Your task to perform on an android device: Open accessibility settings Image 0: 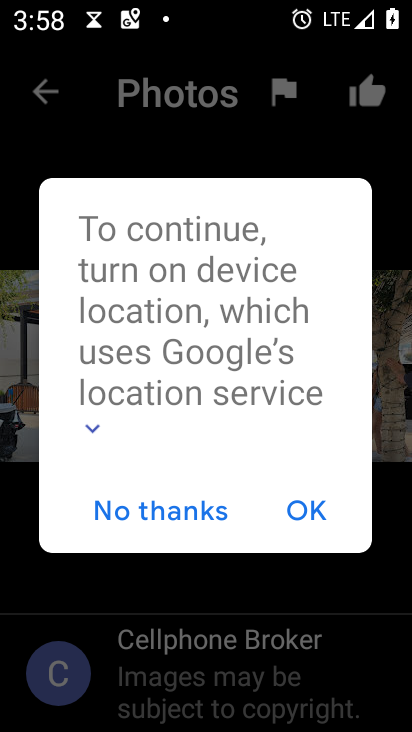
Step 0: press home button
Your task to perform on an android device: Open accessibility settings Image 1: 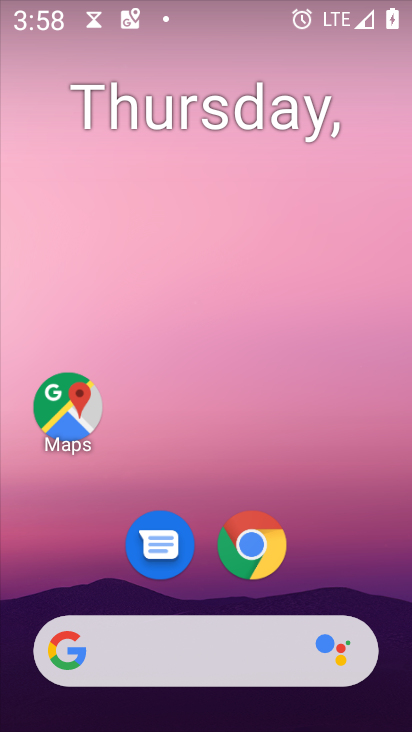
Step 1: drag from (355, 494) to (378, 9)
Your task to perform on an android device: Open accessibility settings Image 2: 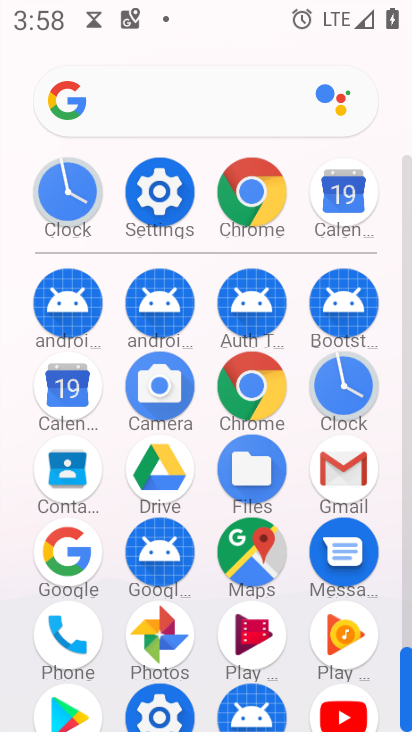
Step 2: click (153, 192)
Your task to perform on an android device: Open accessibility settings Image 3: 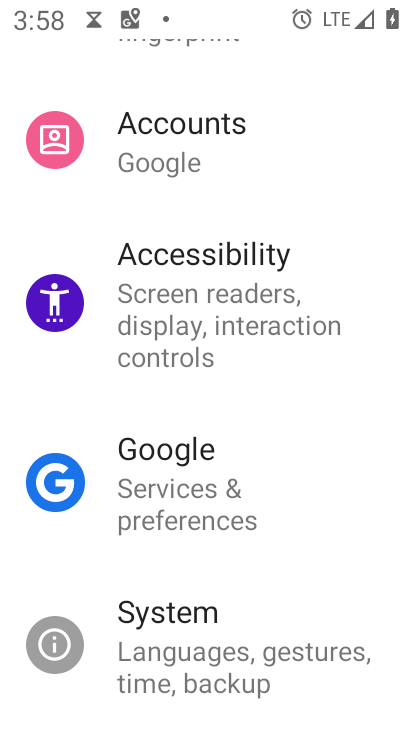
Step 3: click (167, 265)
Your task to perform on an android device: Open accessibility settings Image 4: 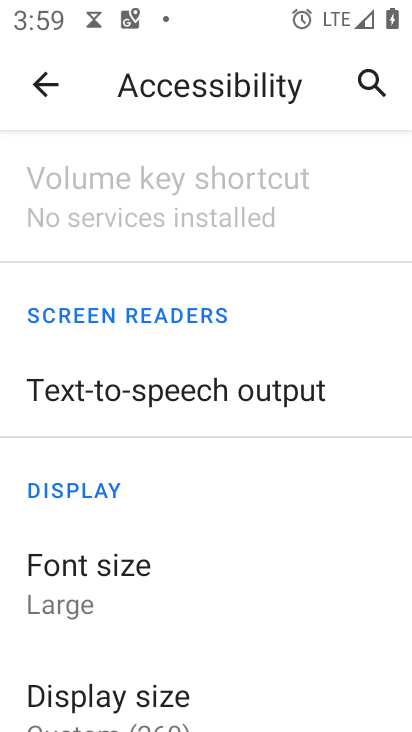
Step 4: task complete